Your task to perform on an android device: turn on notifications settings in the gmail app Image 0: 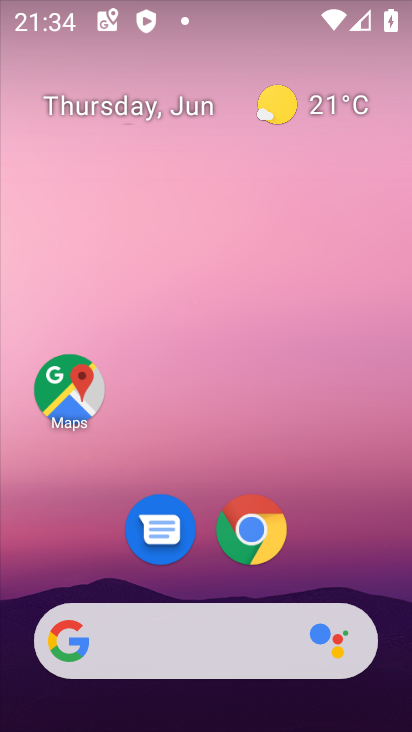
Step 0: drag from (317, 515) to (253, 192)
Your task to perform on an android device: turn on notifications settings in the gmail app Image 1: 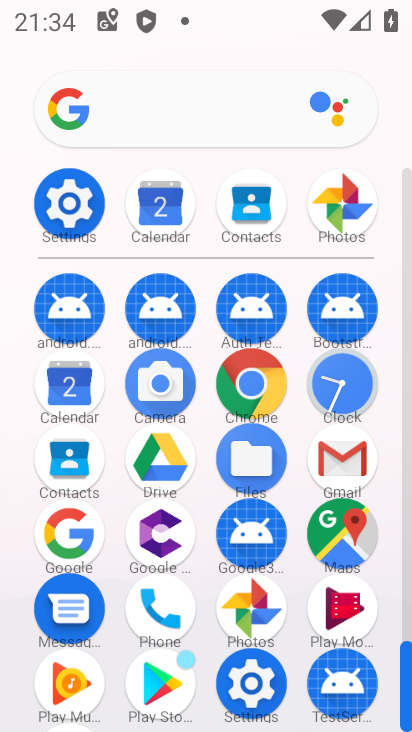
Step 1: click (337, 447)
Your task to perform on an android device: turn on notifications settings in the gmail app Image 2: 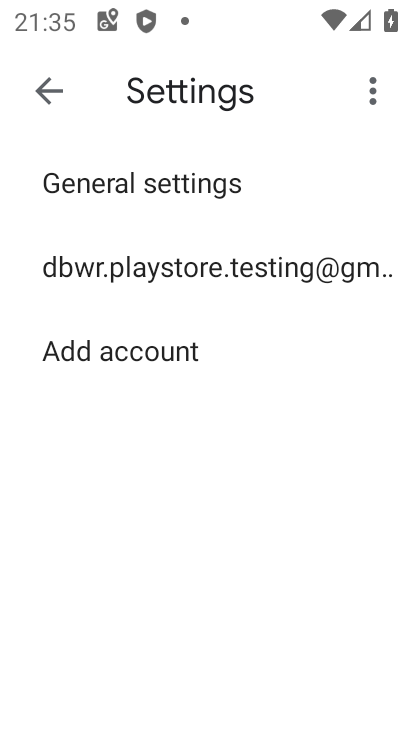
Step 2: click (143, 184)
Your task to perform on an android device: turn on notifications settings in the gmail app Image 3: 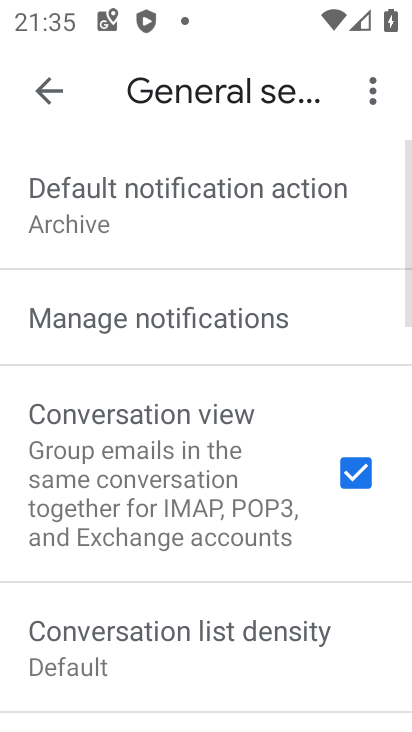
Step 3: click (122, 332)
Your task to perform on an android device: turn on notifications settings in the gmail app Image 4: 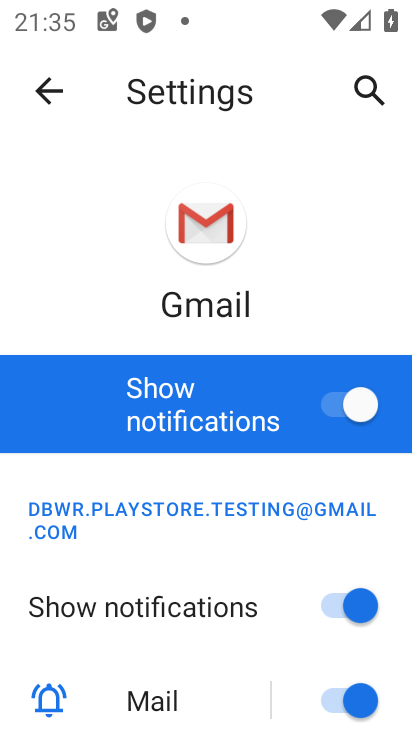
Step 4: task complete